Your task to perform on an android device: visit the assistant section in the google photos Image 0: 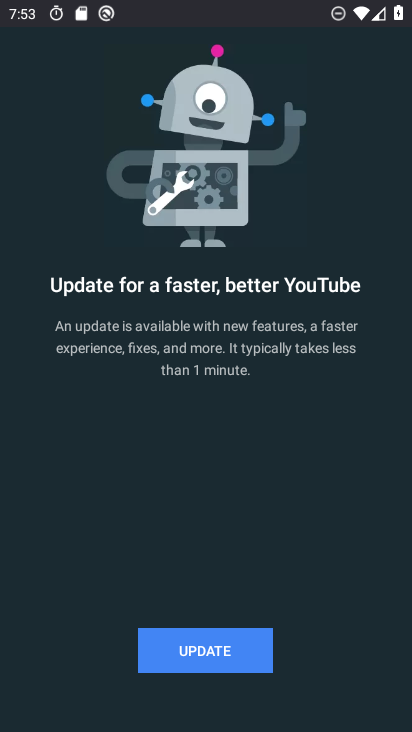
Step 0: press home button
Your task to perform on an android device: visit the assistant section in the google photos Image 1: 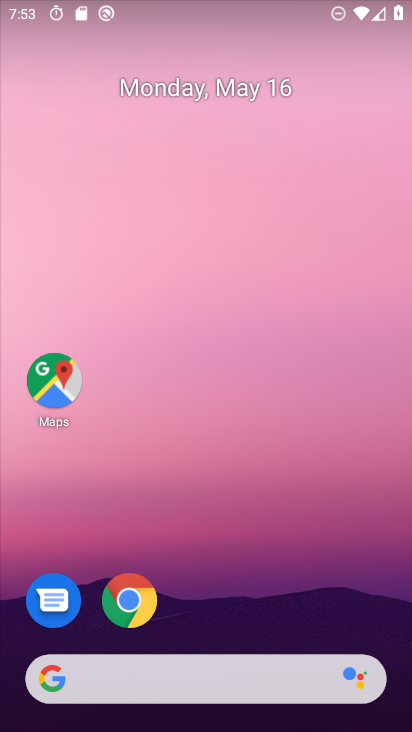
Step 1: drag from (193, 660) to (361, 238)
Your task to perform on an android device: visit the assistant section in the google photos Image 2: 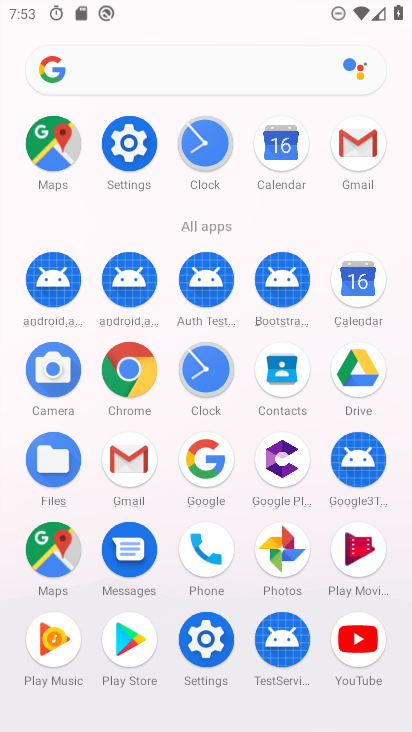
Step 2: click (271, 558)
Your task to perform on an android device: visit the assistant section in the google photos Image 3: 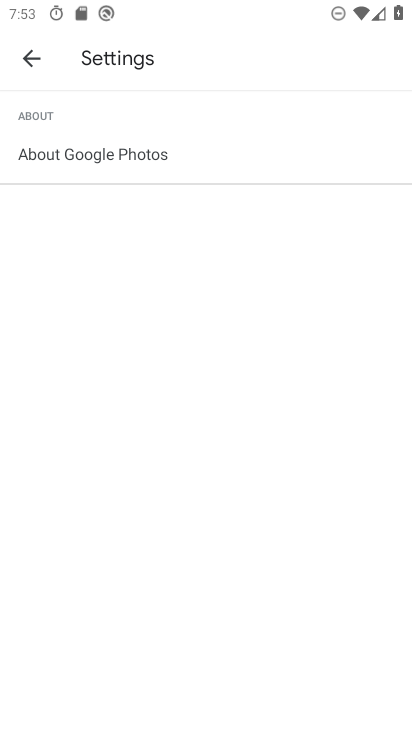
Step 3: click (35, 54)
Your task to perform on an android device: visit the assistant section in the google photos Image 4: 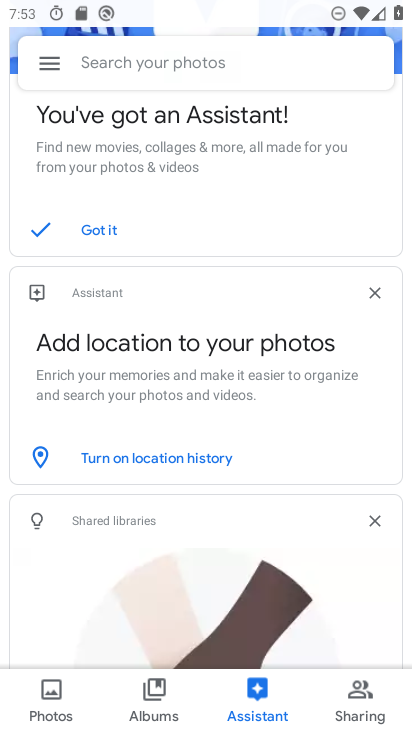
Step 4: task complete